Your task to perform on an android device: install app "Instagram" Image 0: 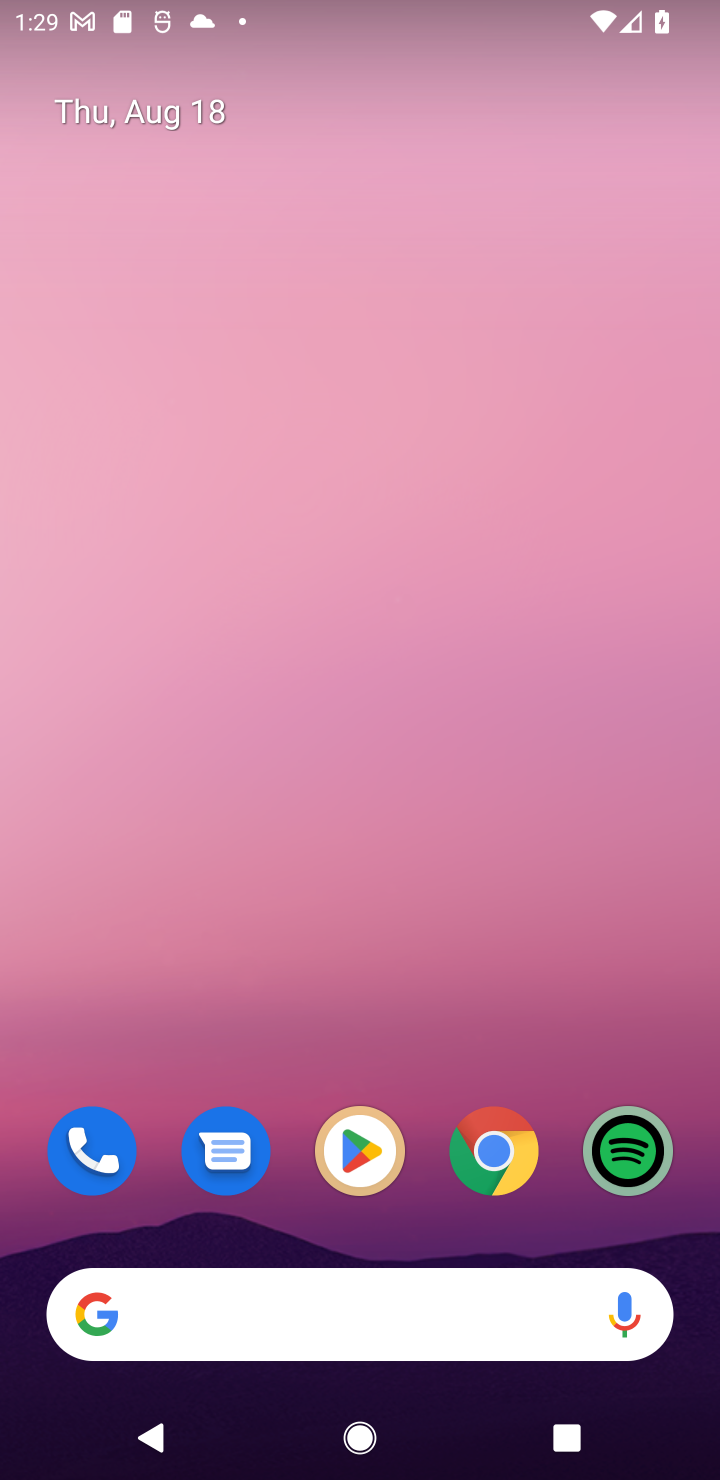
Step 0: press home button
Your task to perform on an android device: install app "Instagram" Image 1: 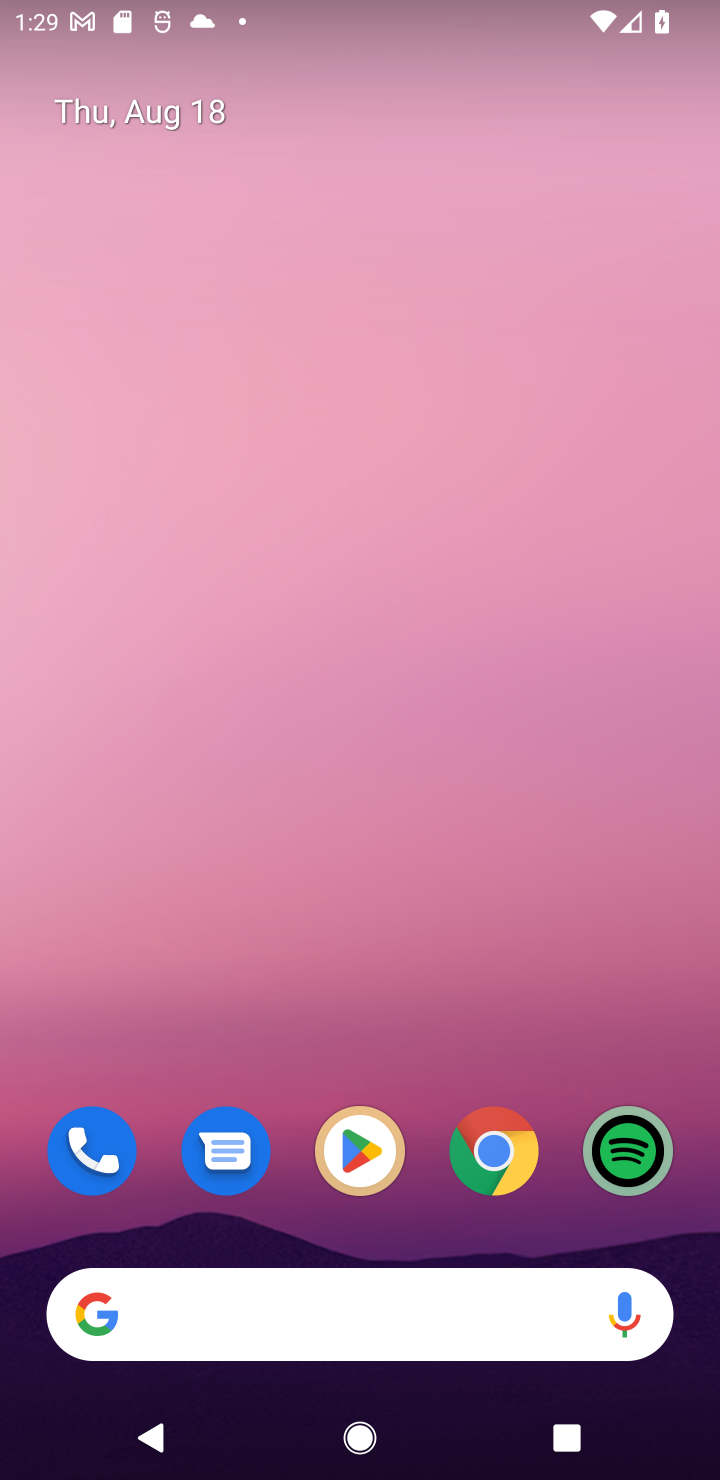
Step 1: click (369, 1173)
Your task to perform on an android device: install app "Instagram" Image 2: 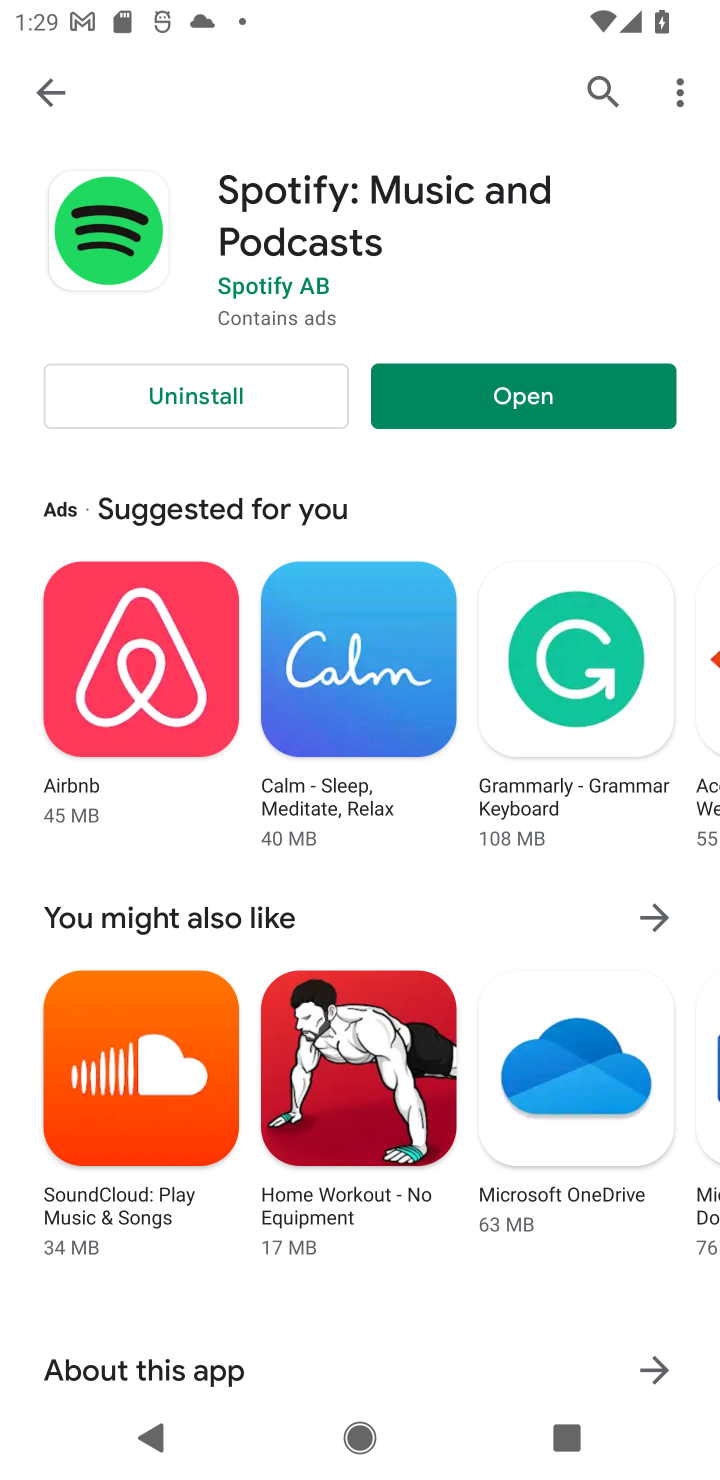
Step 2: click (44, 88)
Your task to perform on an android device: install app "Instagram" Image 3: 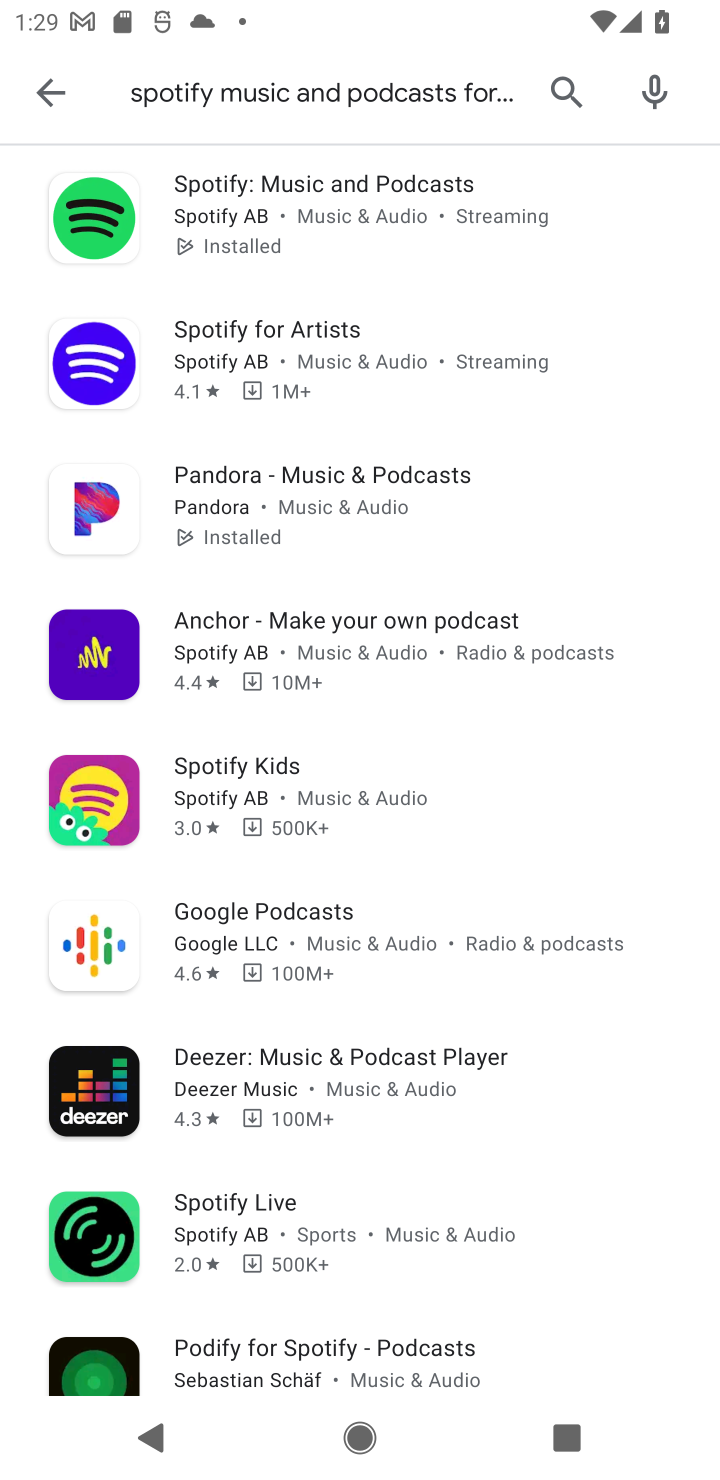
Step 3: click (50, 88)
Your task to perform on an android device: install app "Instagram" Image 4: 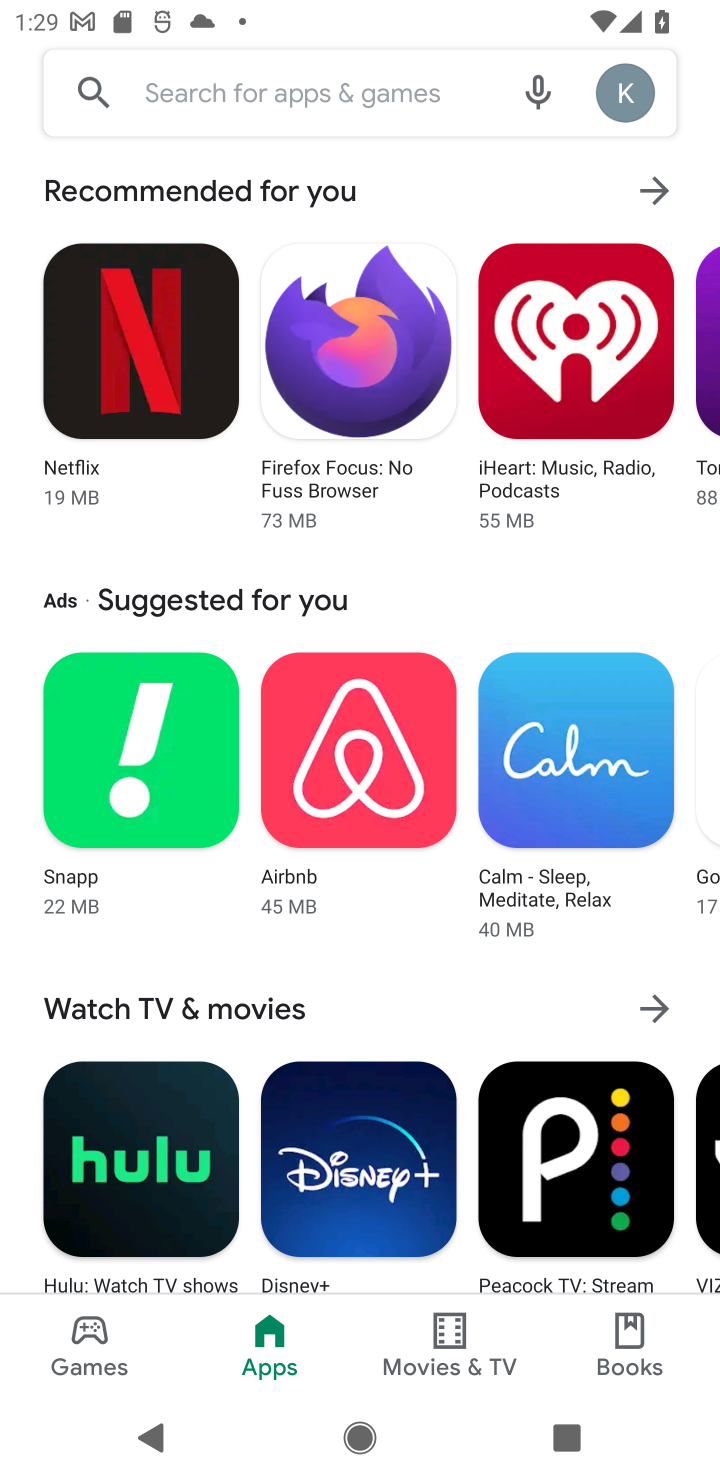
Step 4: click (226, 88)
Your task to perform on an android device: install app "Instagram" Image 5: 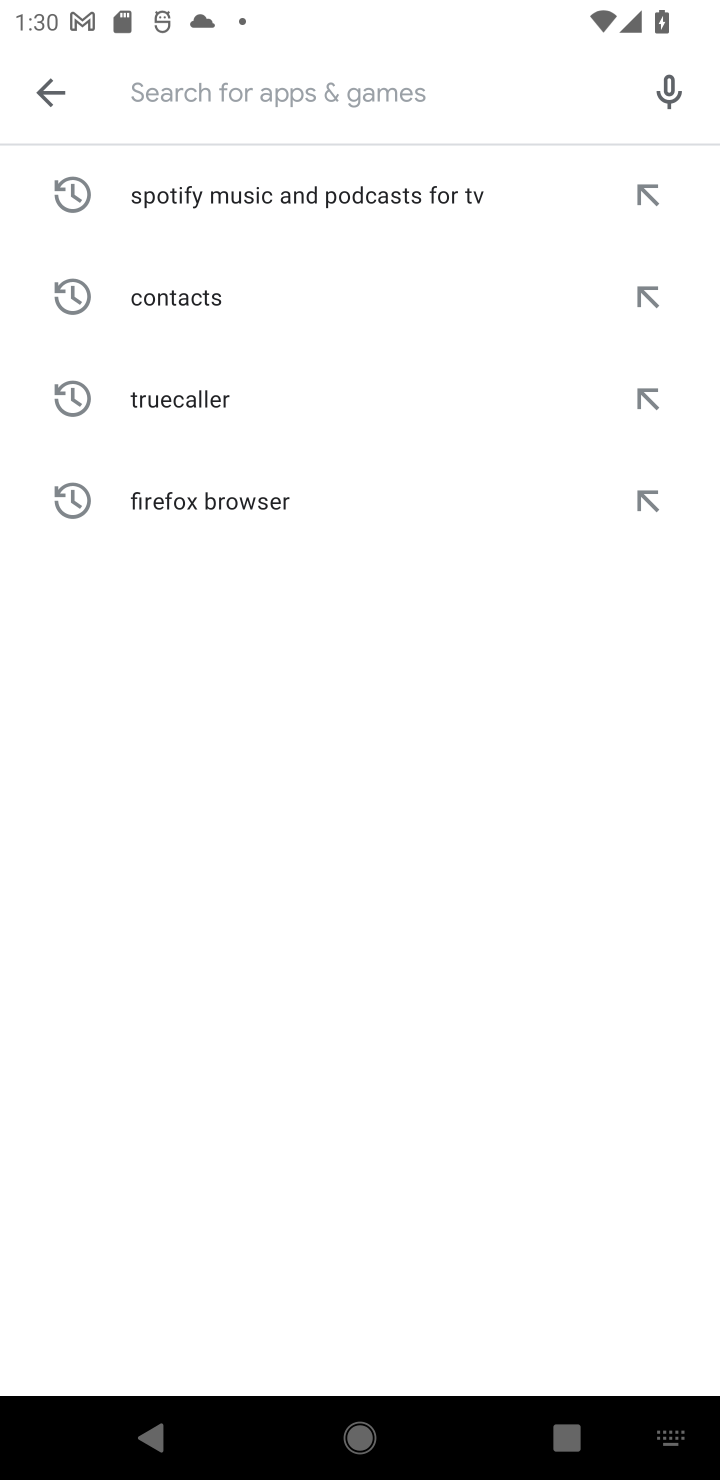
Step 5: type "Instagram"
Your task to perform on an android device: install app "Instagram" Image 6: 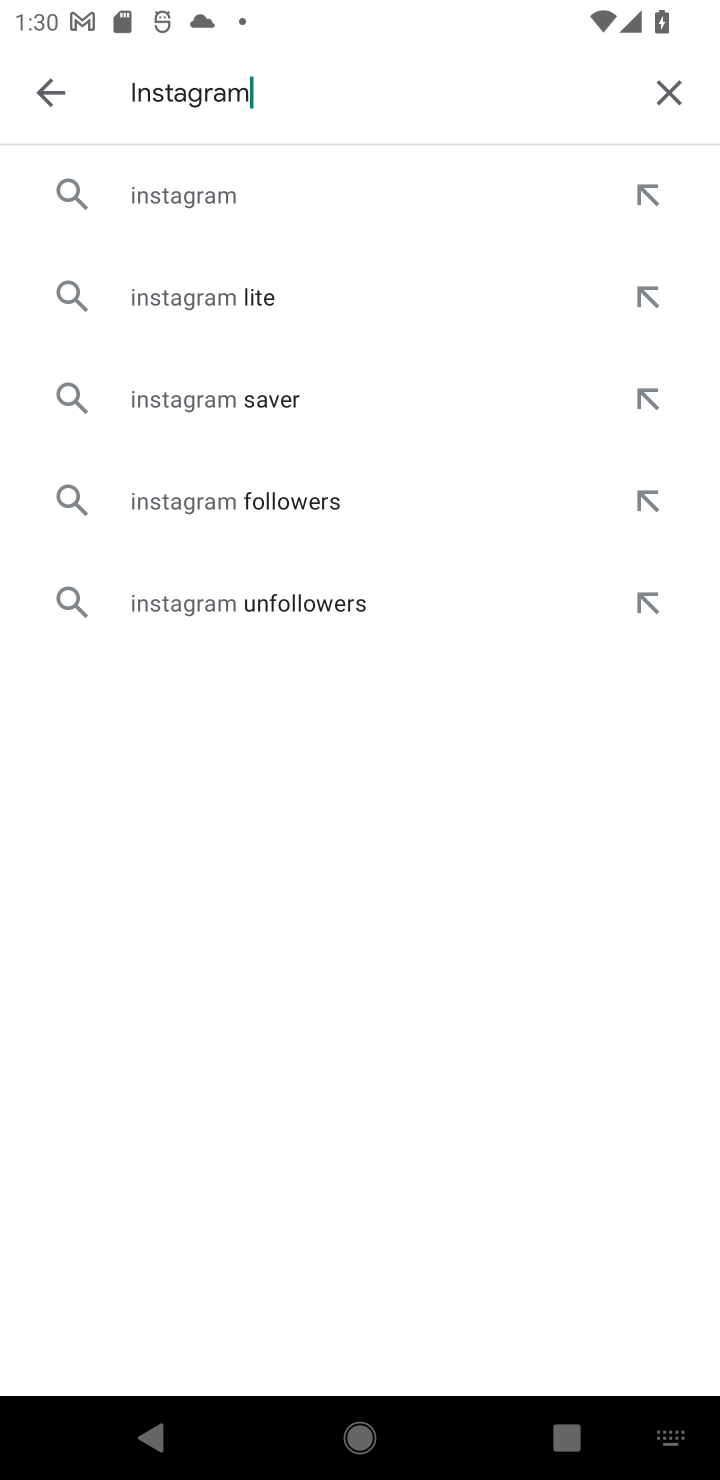
Step 6: click (167, 199)
Your task to perform on an android device: install app "Instagram" Image 7: 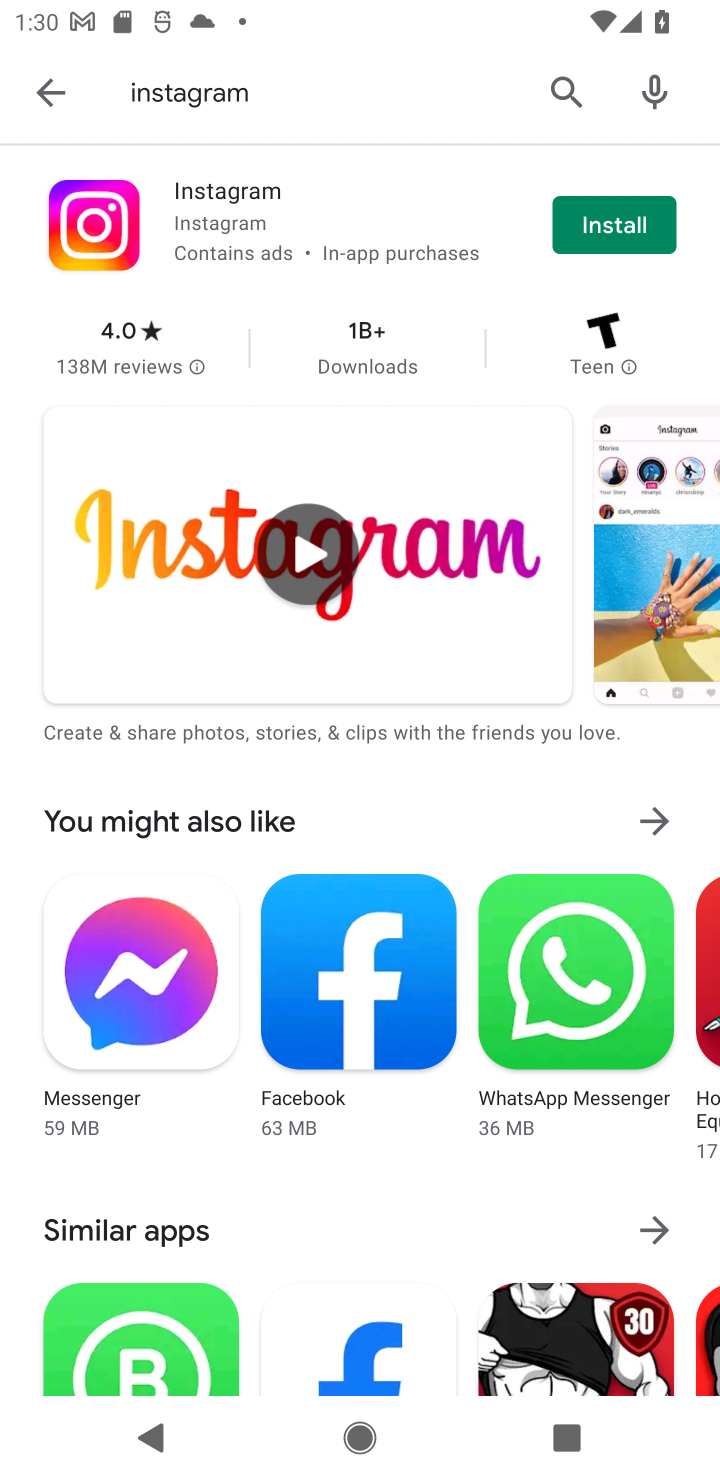
Step 7: click (609, 212)
Your task to perform on an android device: install app "Instagram" Image 8: 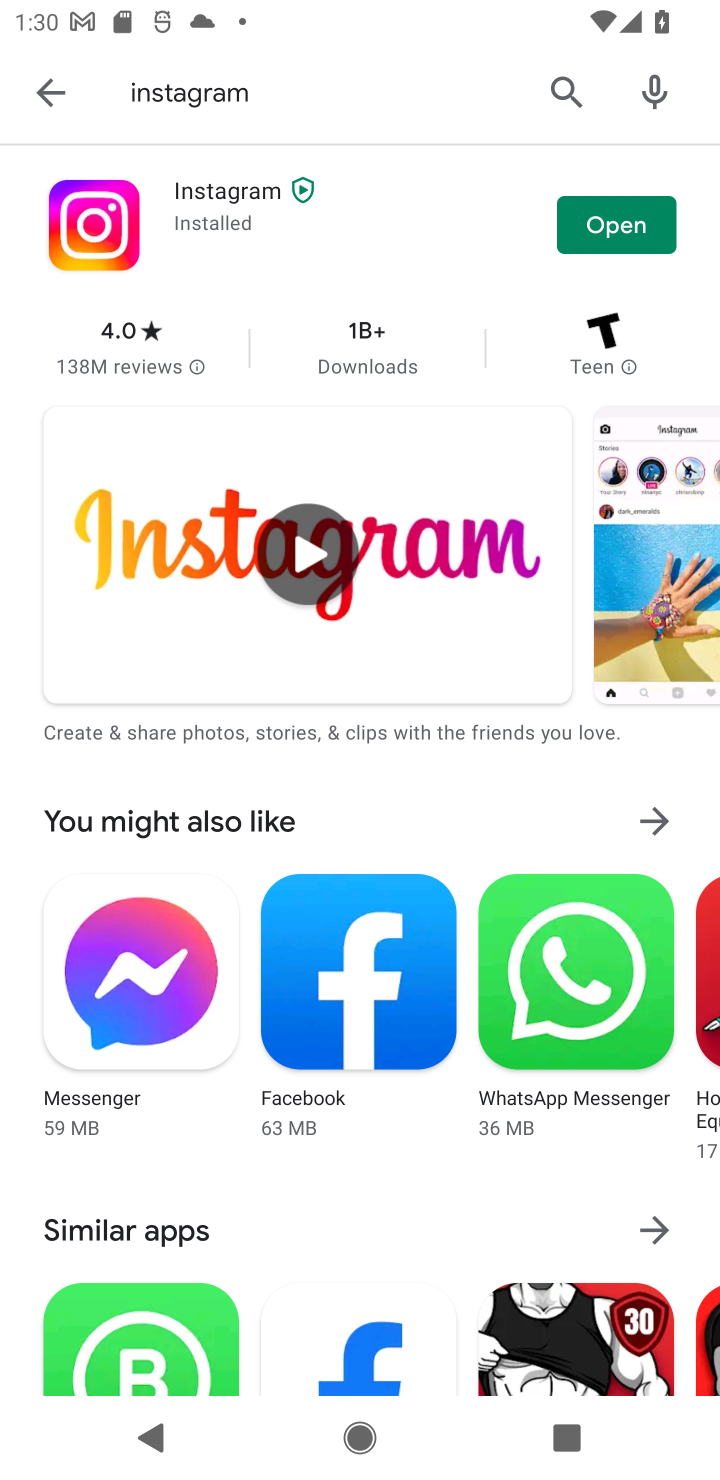
Step 8: click (596, 227)
Your task to perform on an android device: install app "Instagram" Image 9: 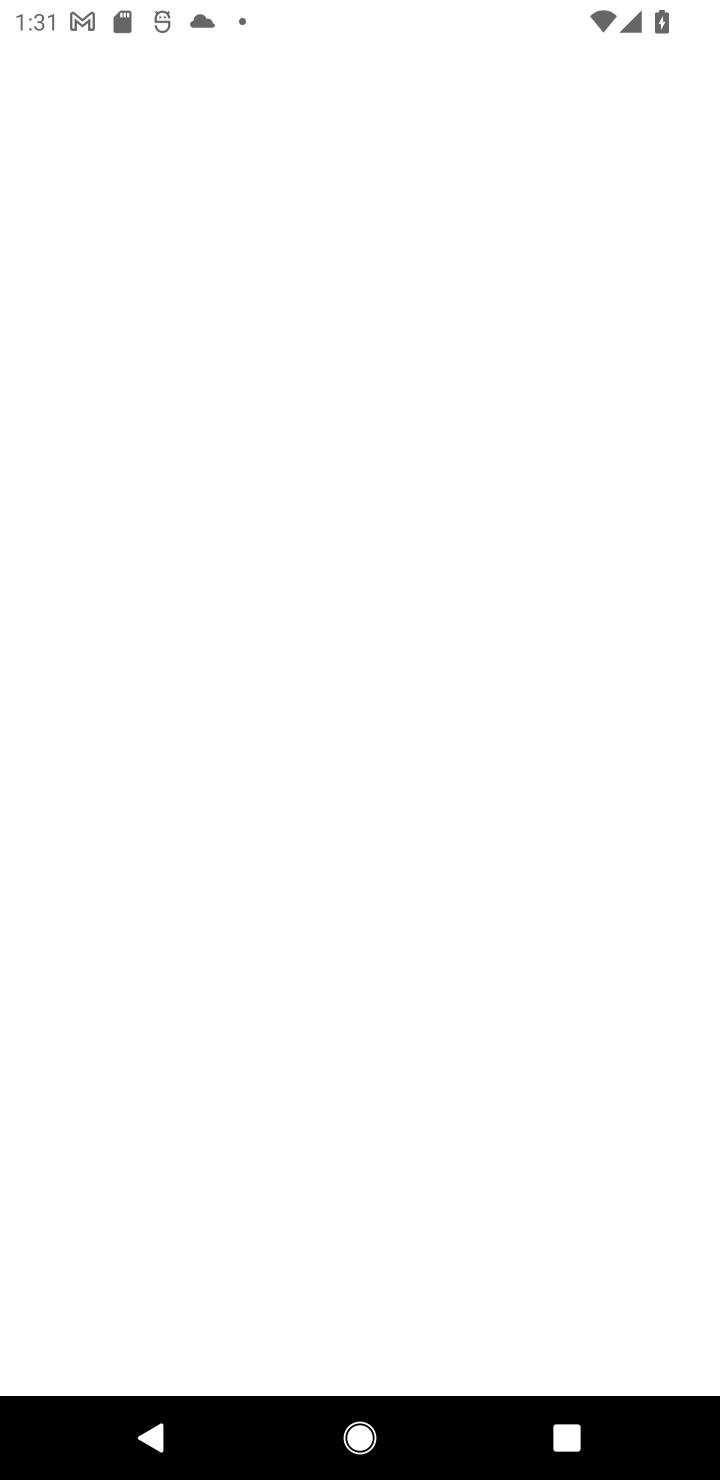
Step 9: task complete